Your task to perform on an android device: Add usb-a to the cart on walmart, then select checkout. Image 0: 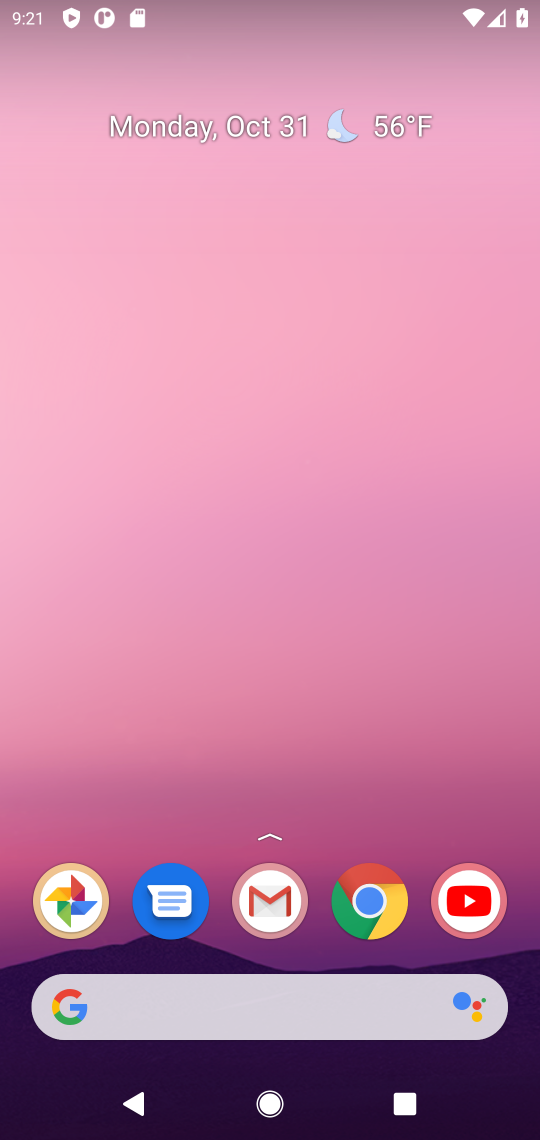
Step 0: drag from (242, 852) to (180, 118)
Your task to perform on an android device: Add usb-a to the cart on walmart, then select checkout. Image 1: 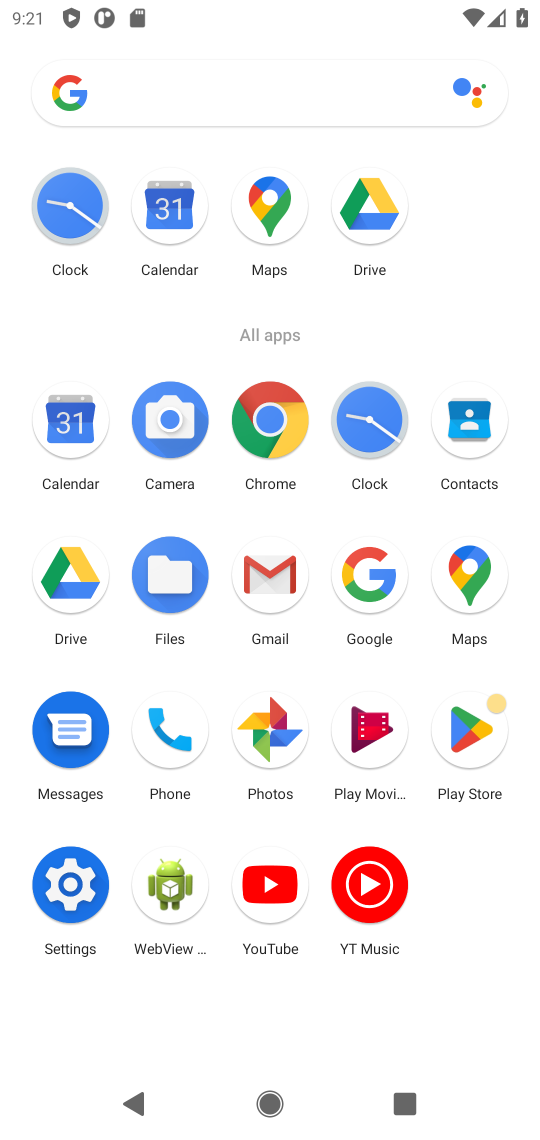
Step 1: click (371, 564)
Your task to perform on an android device: Add usb-a to the cart on walmart, then select checkout. Image 2: 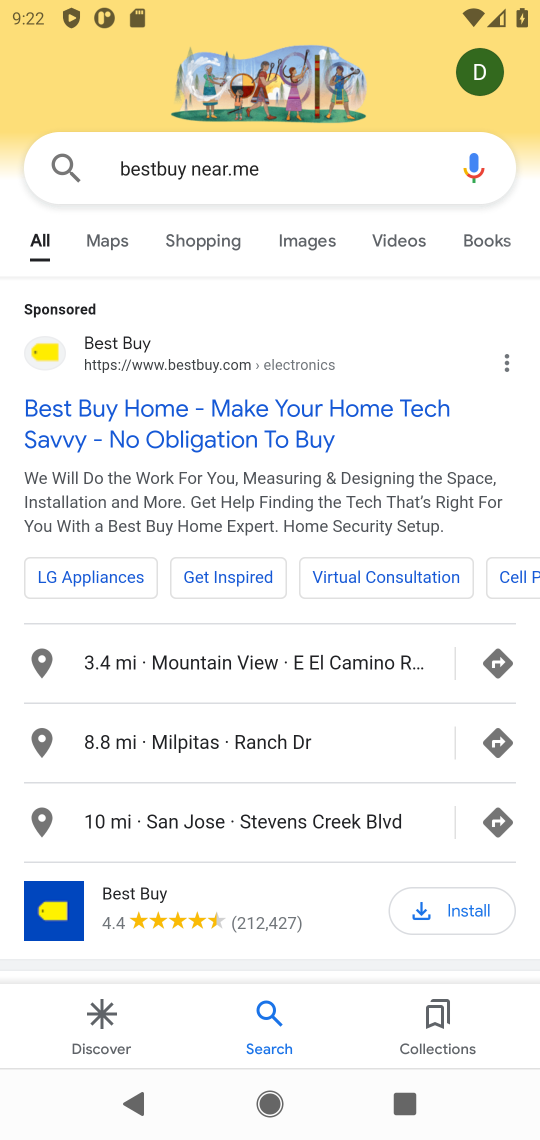
Step 2: click (360, 146)
Your task to perform on an android device: Add usb-a to the cart on walmart, then select checkout. Image 3: 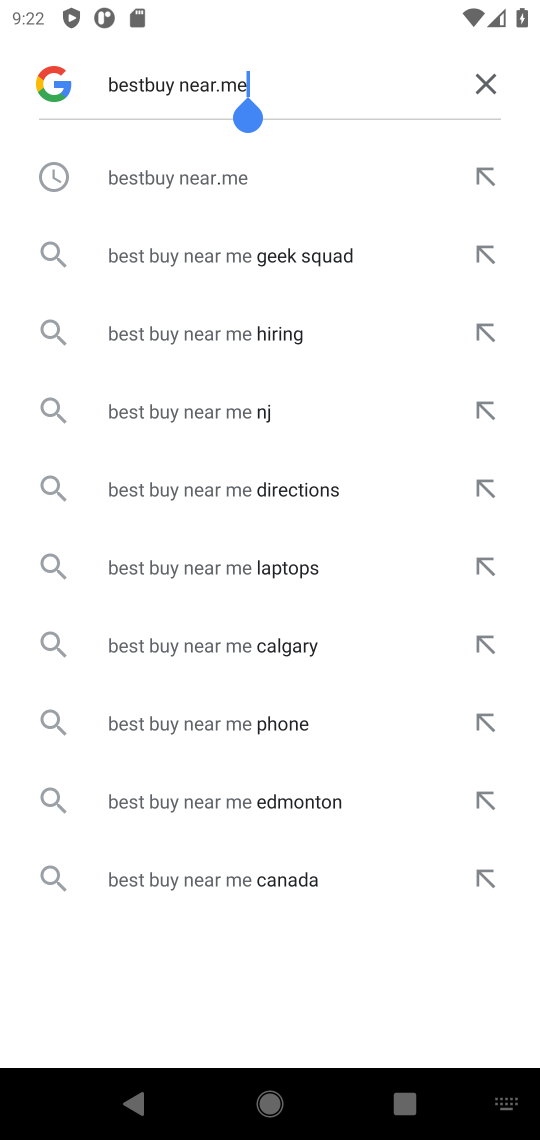
Step 3: click (482, 81)
Your task to perform on an android device: Add usb-a to the cart on walmart, then select checkout. Image 4: 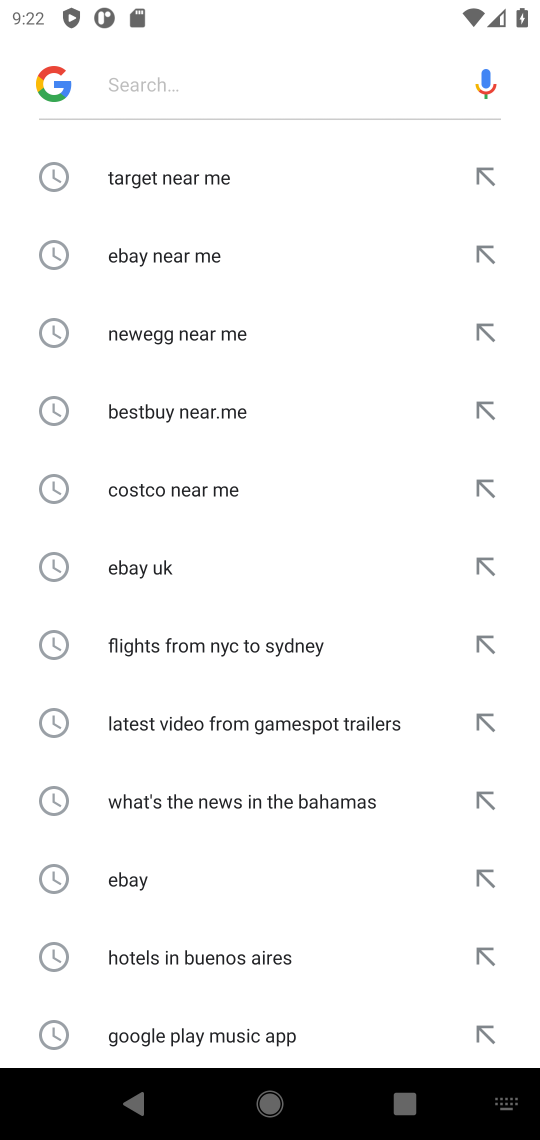
Step 4: click (182, 74)
Your task to perform on an android device: Add usb-a to the cart on walmart, then select checkout. Image 5: 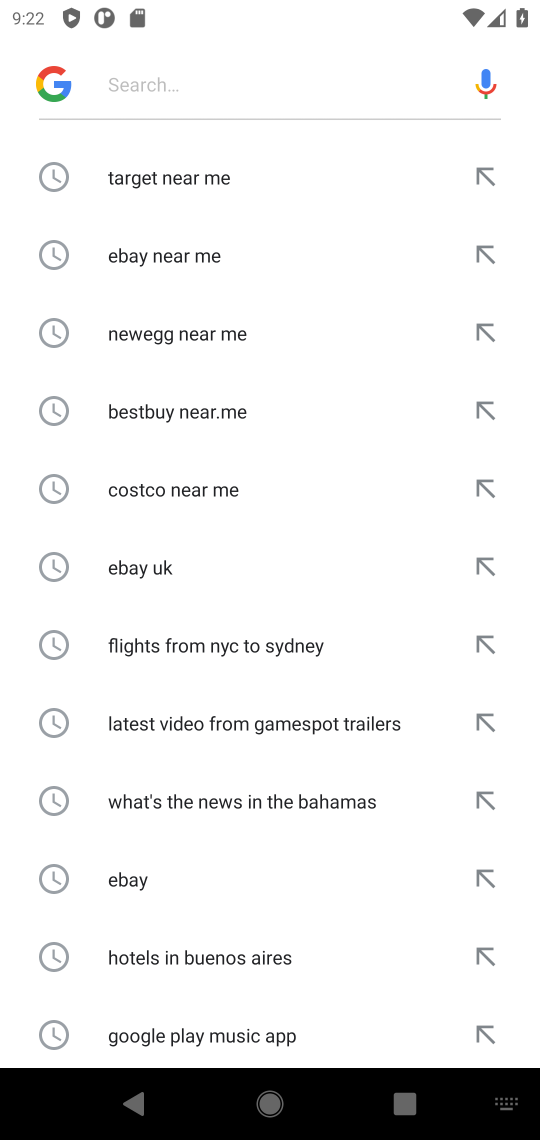
Step 5: type "walmart "
Your task to perform on an android device: Add usb-a to the cart on walmart, then select checkout. Image 6: 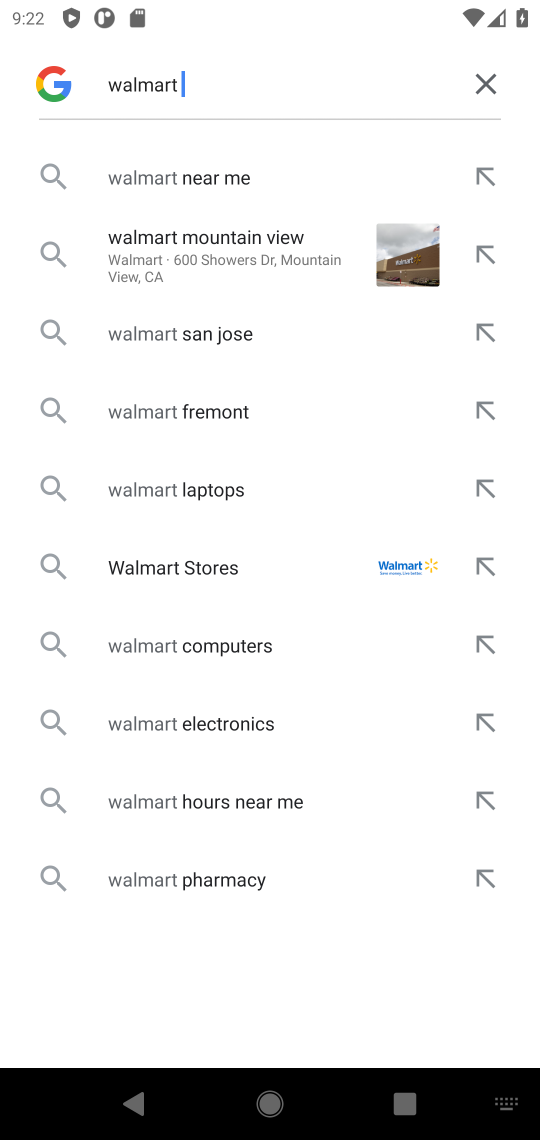
Step 6: click (134, 159)
Your task to perform on an android device: Add usb-a to the cart on walmart, then select checkout. Image 7: 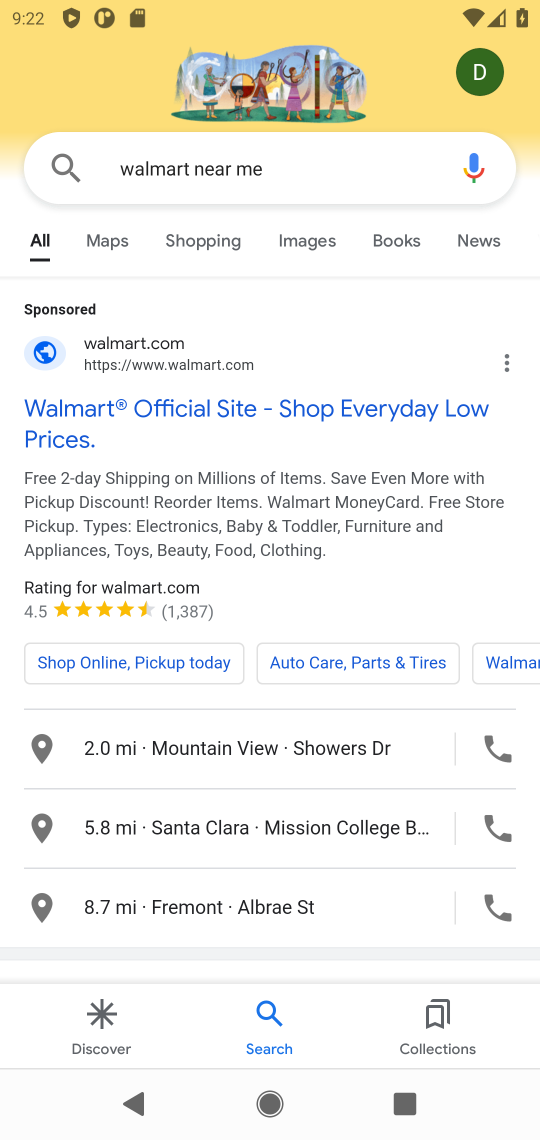
Step 7: click (119, 409)
Your task to perform on an android device: Add usb-a to the cart on walmart, then select checkout. Image 8: 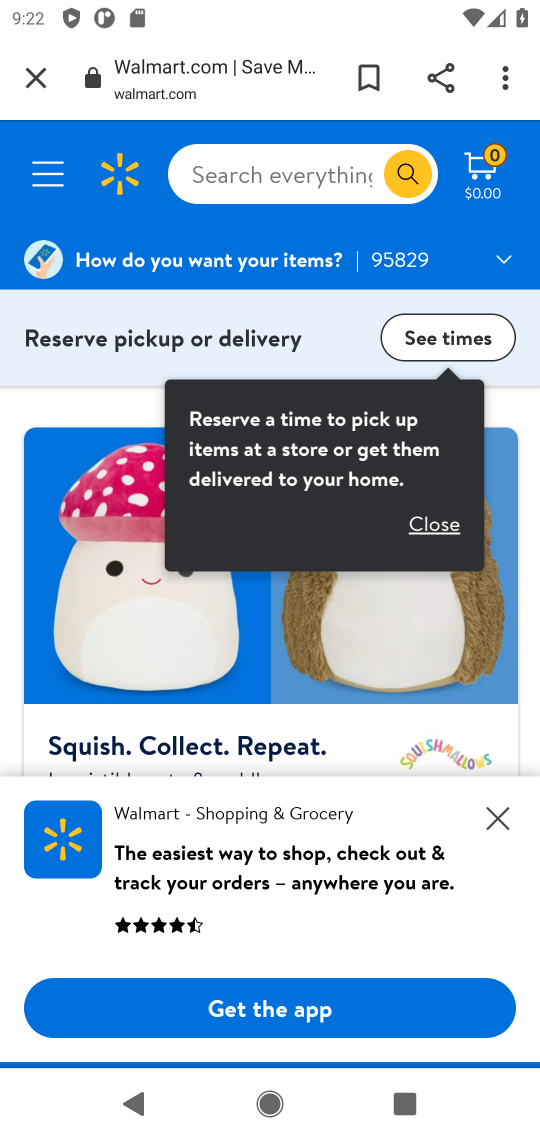
Step 8: click (211, 161)
Your task to perform on an android device: Add usb-a to the cart on walmart, then select checkout. Image 9: 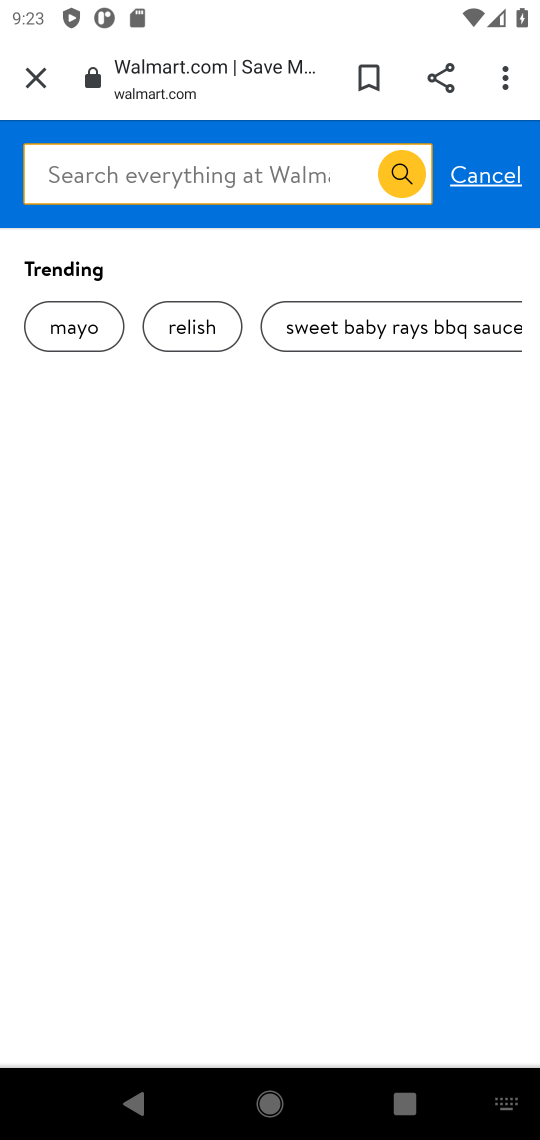
Step 9: click (154, 170)
Your task to perform on an android device: Add usb-a to the cart on walmart, then select checkout. Image 10: 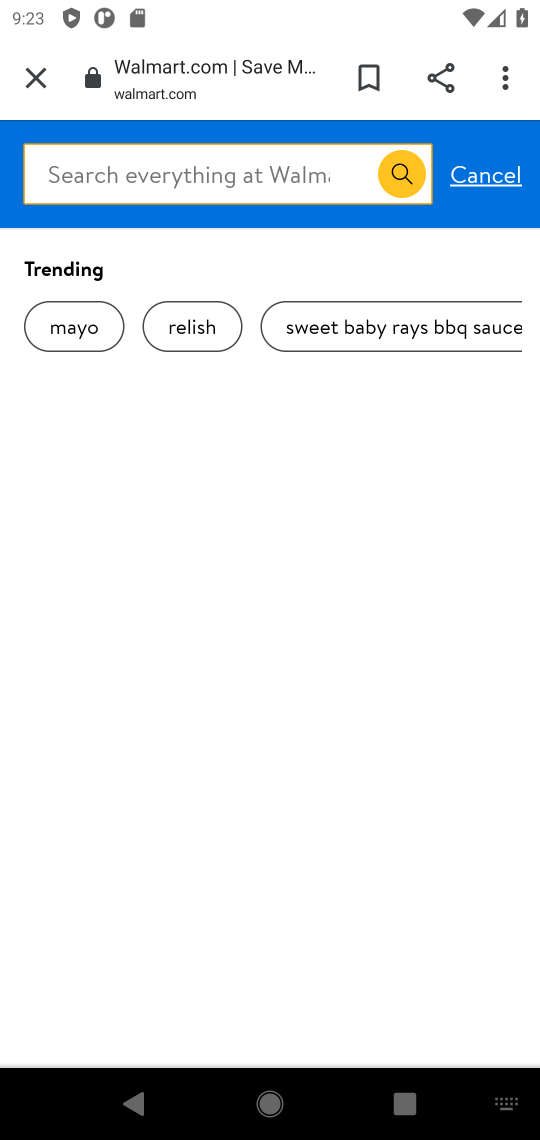
Step 10: type "usb-a "
Your task to perform on an android device: Add usb-a to the cart on walmart, then select checkout. Image 11: 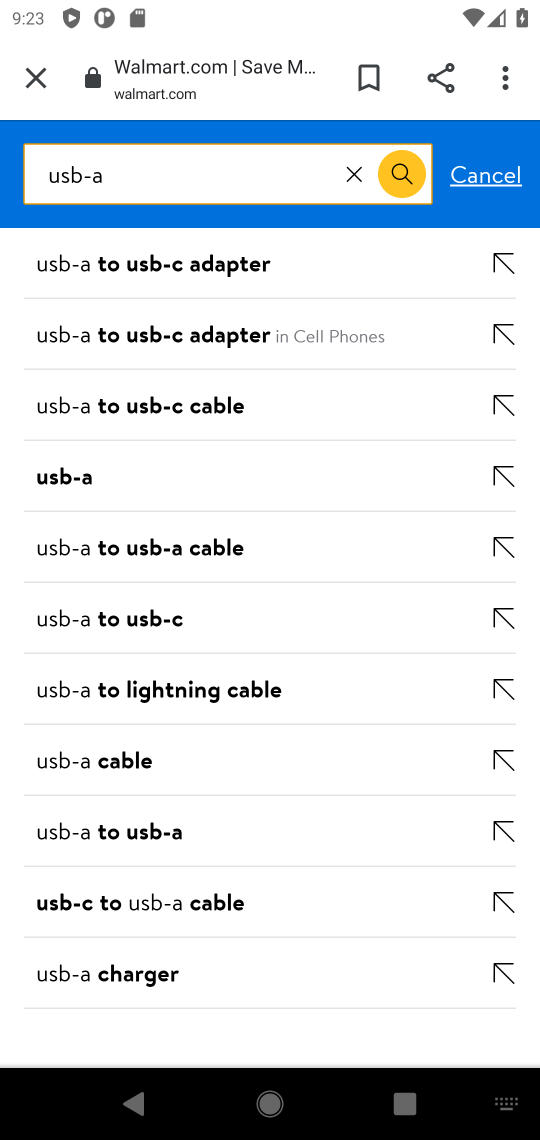
Step 11: click (131, 463)
Your task to perform on an android device: Add usb-a to the cart on walmart, then select checkout. Image 12: 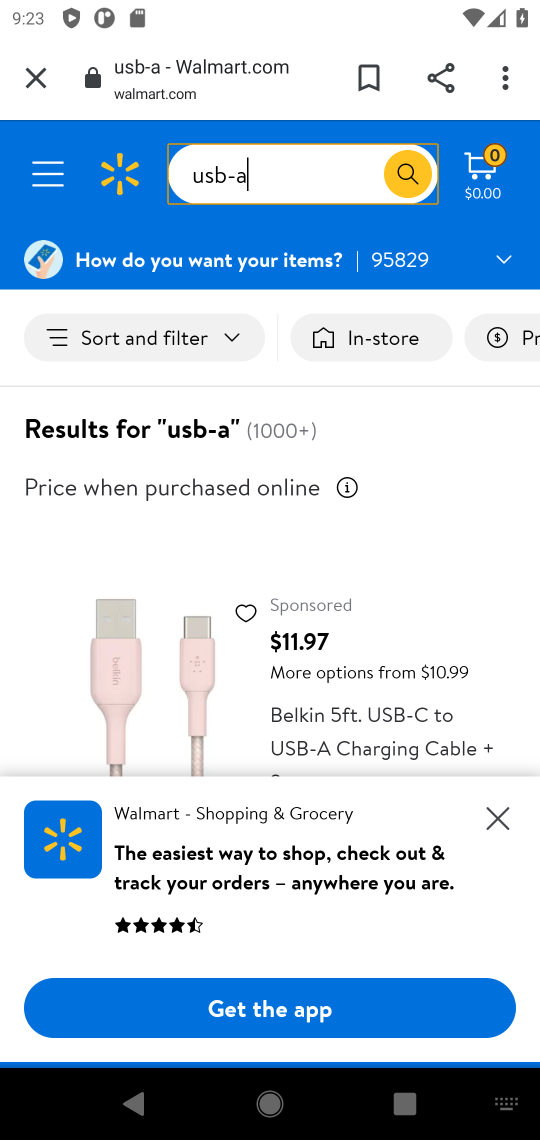
Step 12: click (491, 820)
Your task to perform on an android device: Add usb-a to the cart on walmart, then select checkout. Image 13: 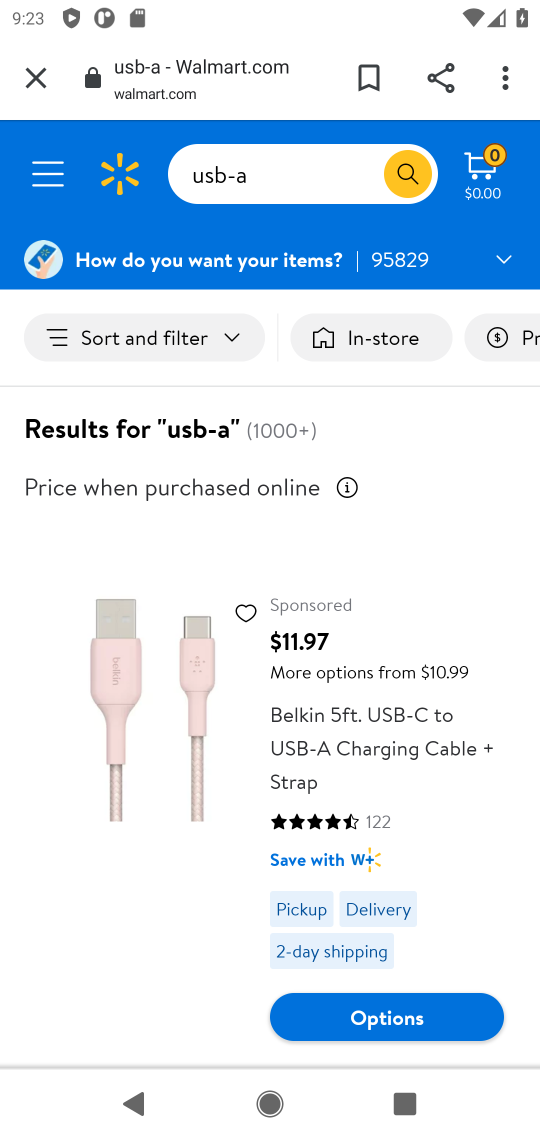
Step 13: drag from (409, 931) to (406, 587)
Your task to perform on an android device: Add usb-a to the cart on walmart, then select checkout. Image 14: 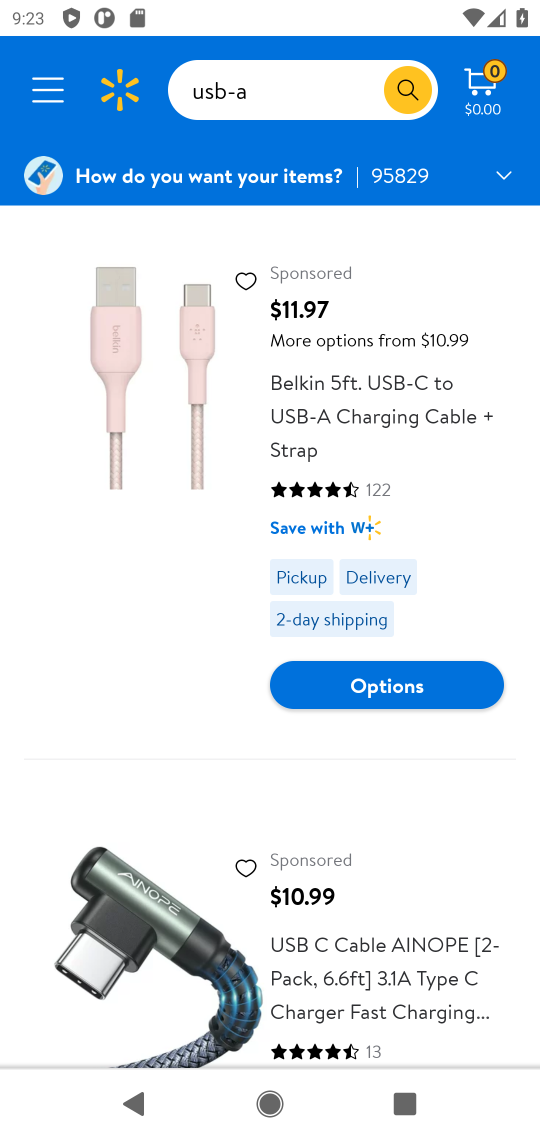
Step 14: click (354, 654)
Your task to perform on an android device: Add usb-a to the cart on walmart, then select checkout. Image 15: 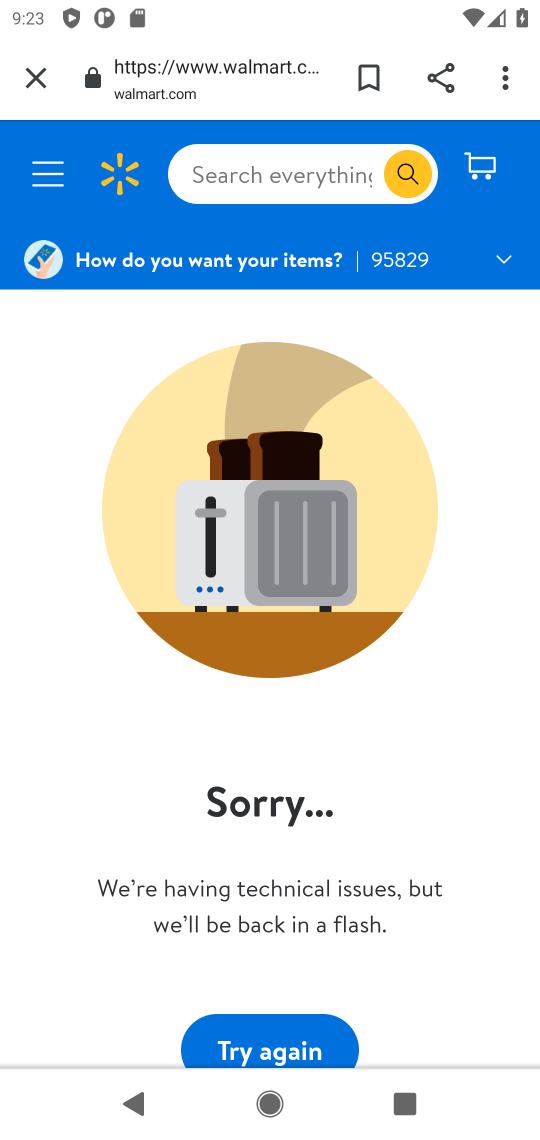
Step 15: drag from (275, 987) to (336, 521)
Your task to perform on an android device: Add usb-a to the cart on walmart, then select checkout. Image 16: 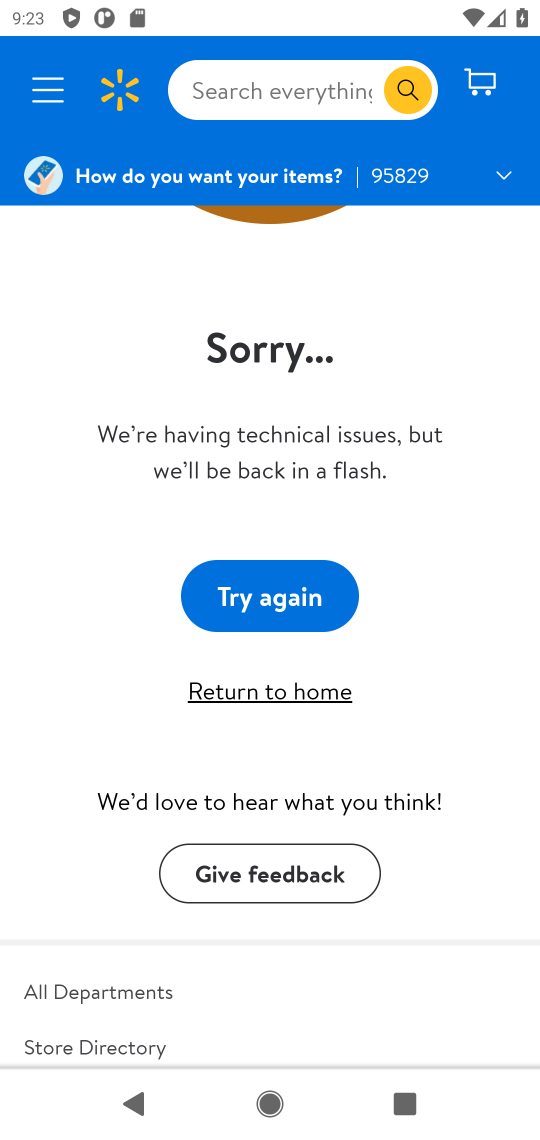
Step 16: press back button
Your task to perform on an android device: Add usb-a to the cart on walmart, then select checkout. Image 17: 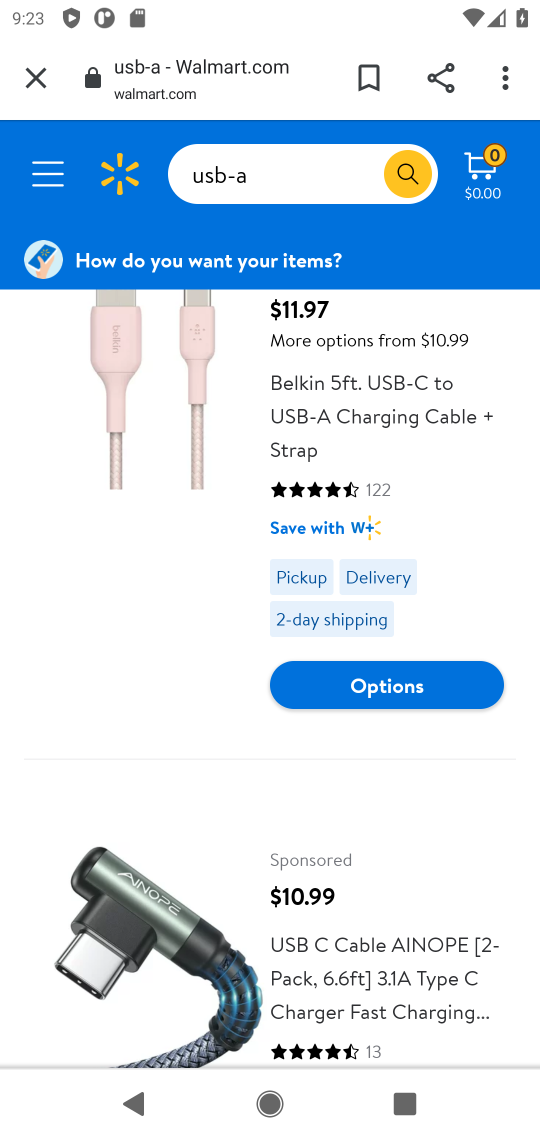
Step 17: click (174, 416)
Your task to perform on an android device: Add usb-a to the cart on walmart, then select checkout. Image 18: 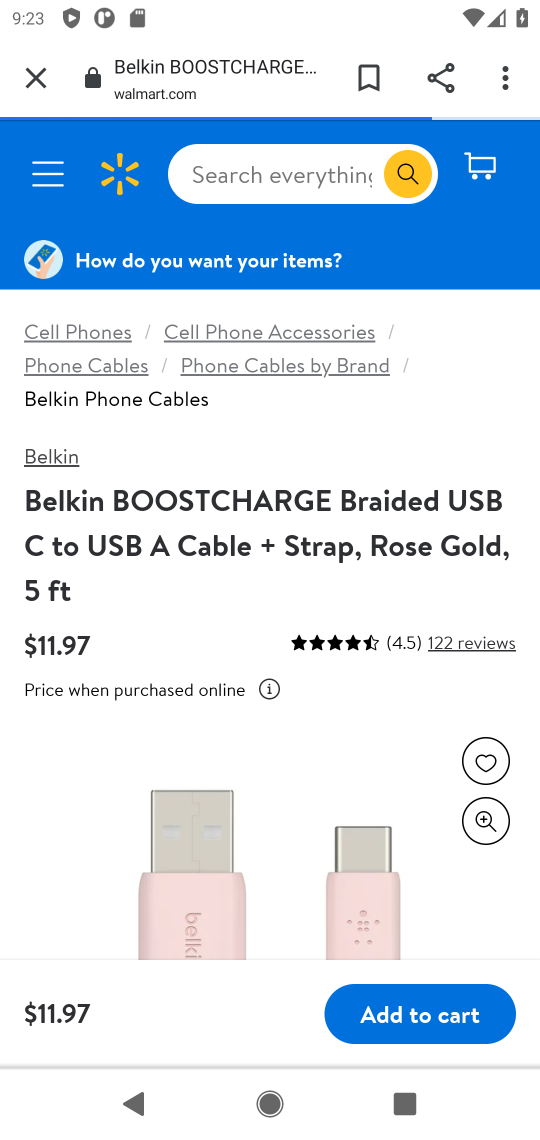
Step 18: click (468, 1014)
Your task to perform on an android device: Add usb-a to the cart on walmart, then select checkout. Image 19: 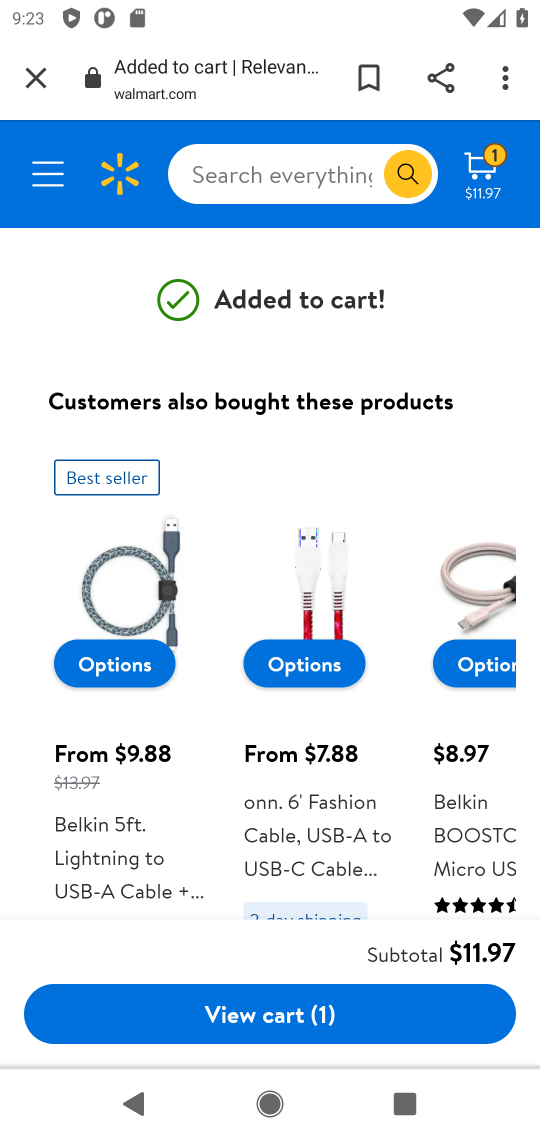
Step 19: task complete